Your task to perform on an android device: When is my next meeting? Image 0: 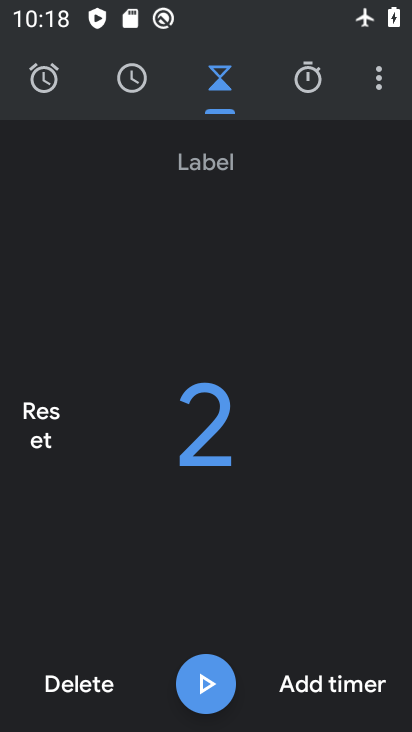
Step 0: press home button
Your task to perform on an android device: When is my next meeting? Image 1: 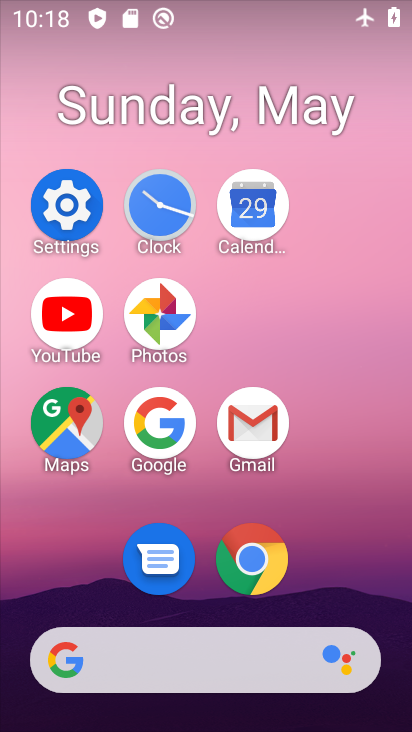
Step 1: click (267, 218)
Your task to perform on an android device: When is my next meeting? Image 2: 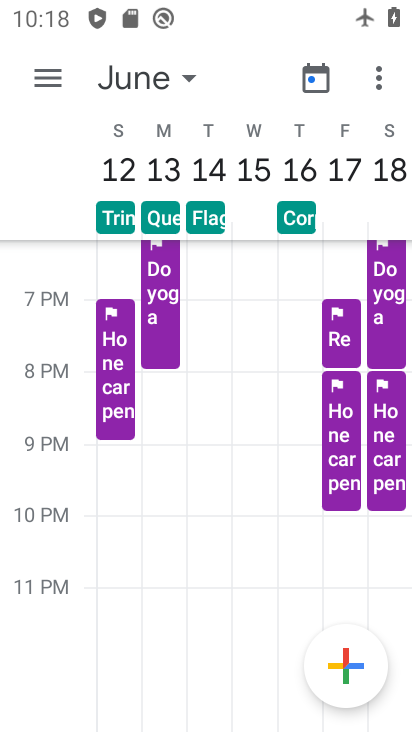
Step 2: click (142, 82)
Your task to perform on an android device: When is my next meeting? Image 3: 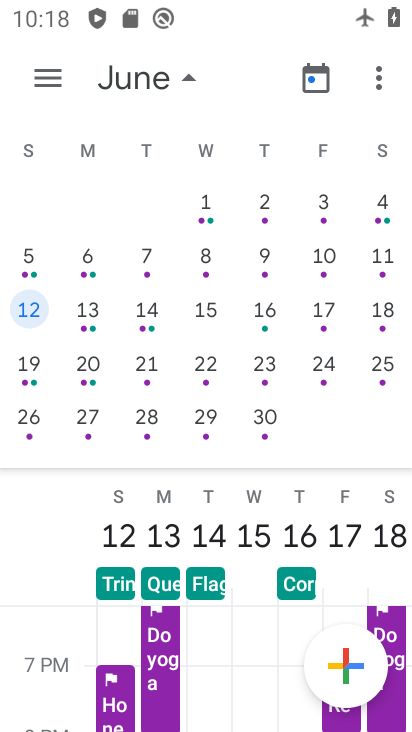
Step 3: drag from (43, 342) to (390, 140)
Your task to perform on an android device: When is my next meeting? Image 4: 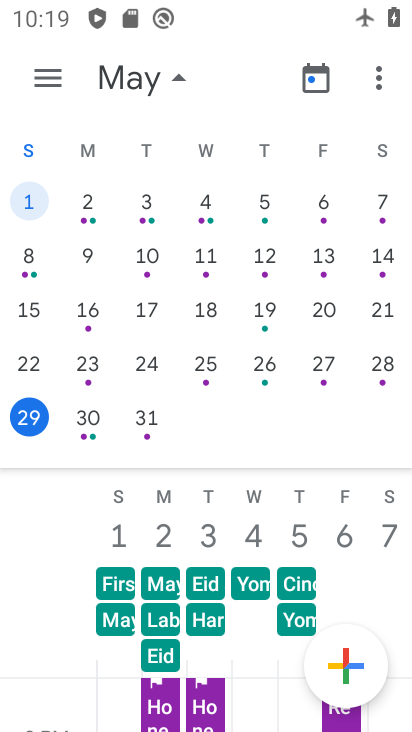
Step 4: drag from (151, 315) to (390, 326)
Your task to perform on an android device: When is my next meeting? Image 5: 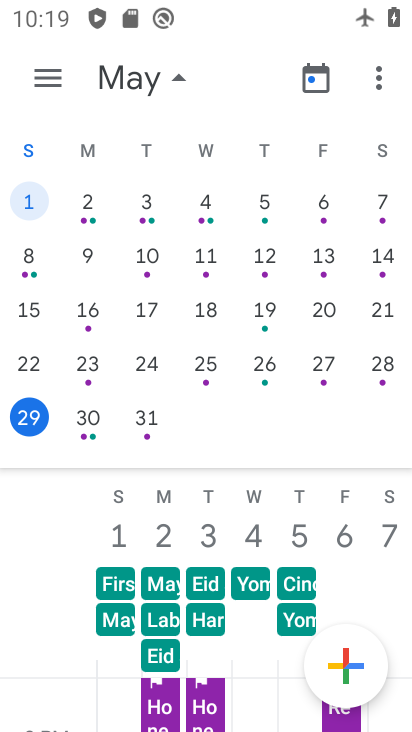
Step 5: drag from (376, 303) to (14, 280)
Your task to perform on an android device: When is my next meeting? Image 6: 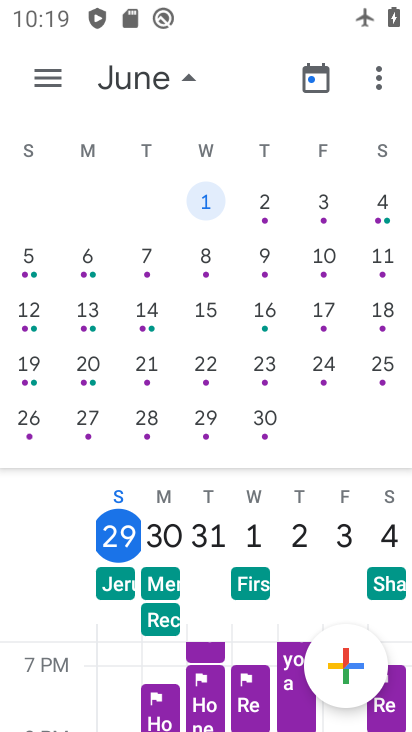
Step 6: click (188, 204)
Your task to perform on an android device: When is my next meeting? Image 7: 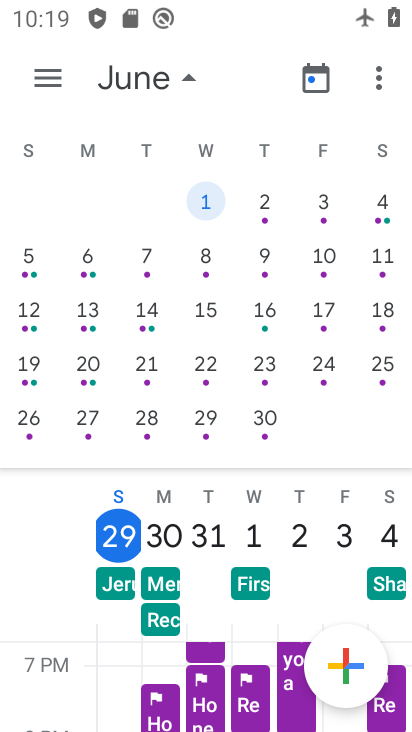
Step 7: click (211, 197)
Your task to perform on an android device: When is my next meeting? Image 8: 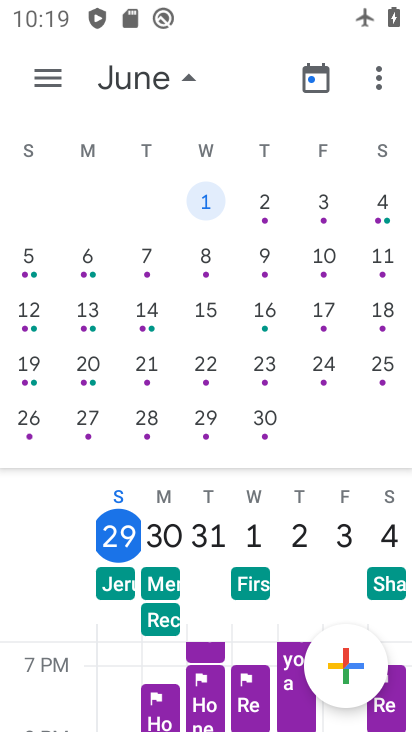
Step 8: click (200, 200)
Your task to perform on an android device: When is my next meeting? Image 9: 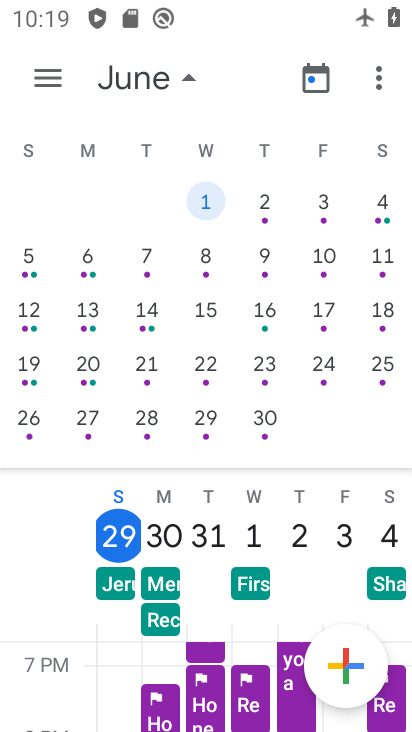
Step 9: click (43, 78)
Your task to perform on an android device: When is my next meeting? Image 10: 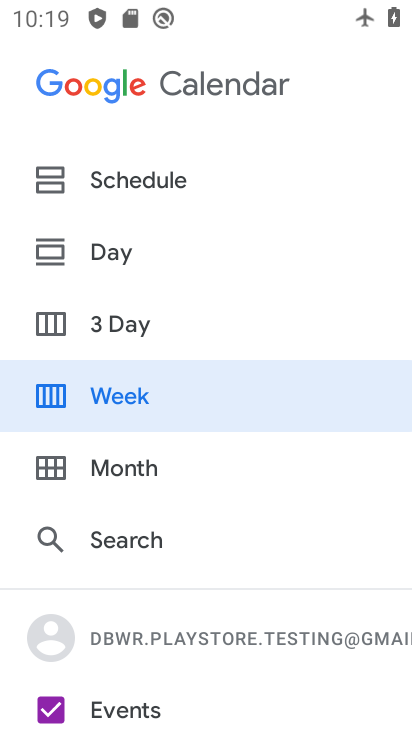
Step 10: click (125, 237)
Your task to perform on an android device: When is my next meeting? Image 11: 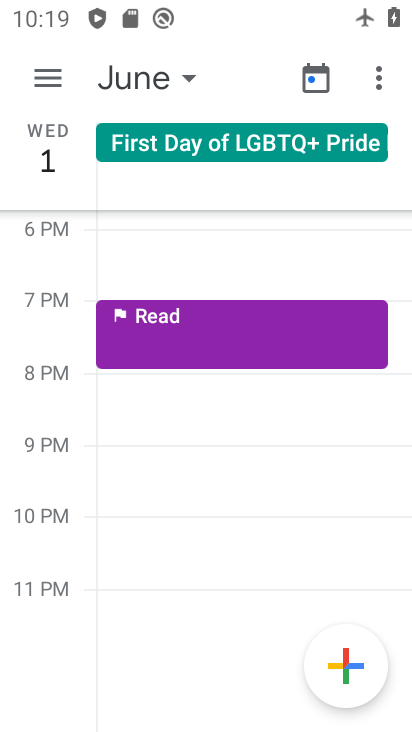
Step 11: task complete